Your task to perform on an android device: Show me popular videos on Youtube Image 0: 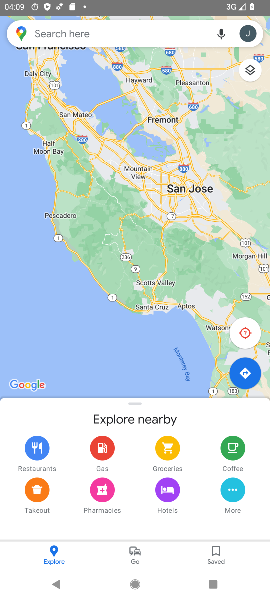
Step 0: press home button
Your task to perform on an android device: Show me popular videos on Youtube Image 1: 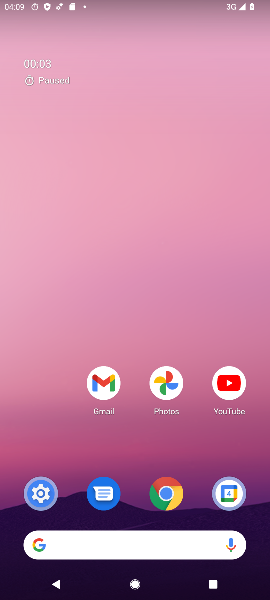
Step 1: click (222, 383)
Your task to perform on an android device: Show me popular videos on Youtube Image 2: 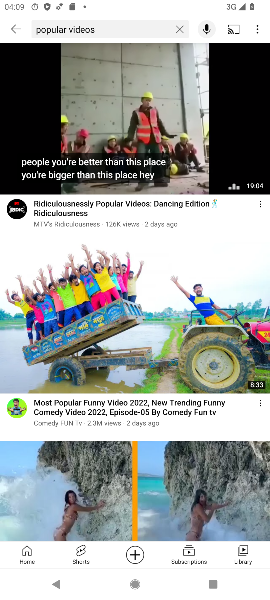
Step 2: task complete